Your task to perform on an android device: empty trash in google photos Image 0: 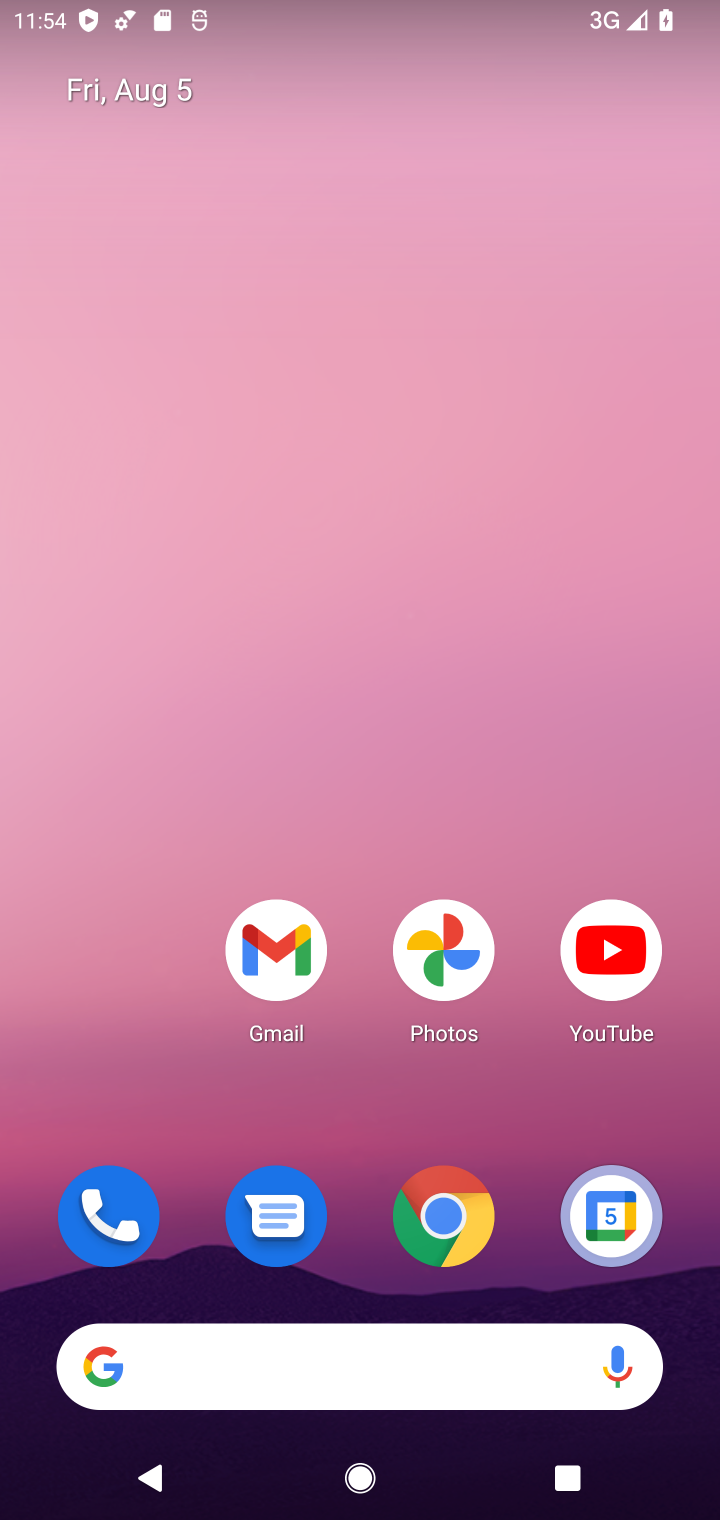
Step 0: drag from (409, 1355) to (443, 4)
Your task to perform on an android device: empty trash in google photos Image 1: 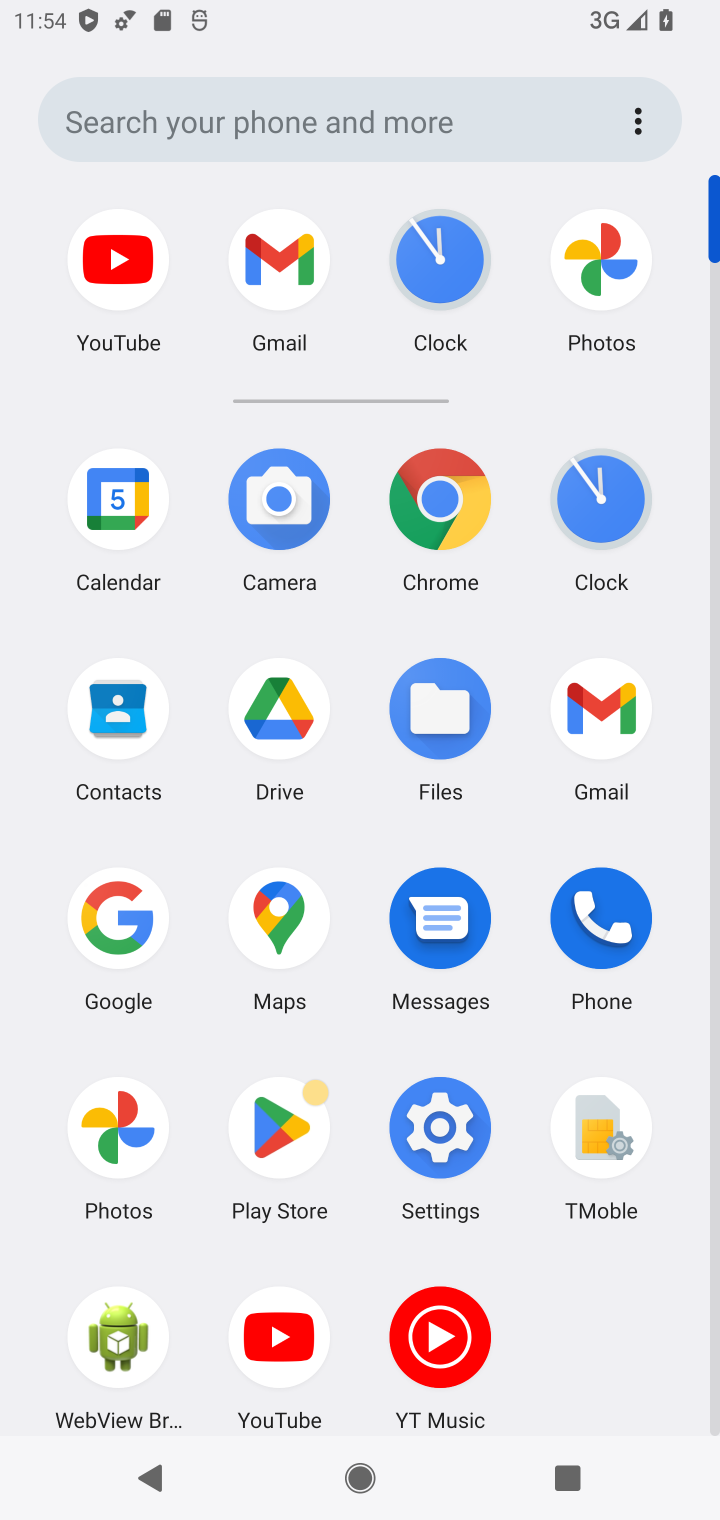
Step 1: click (116, 1112)
Your task to perform on an android device: empty trash in google photos Image 2: 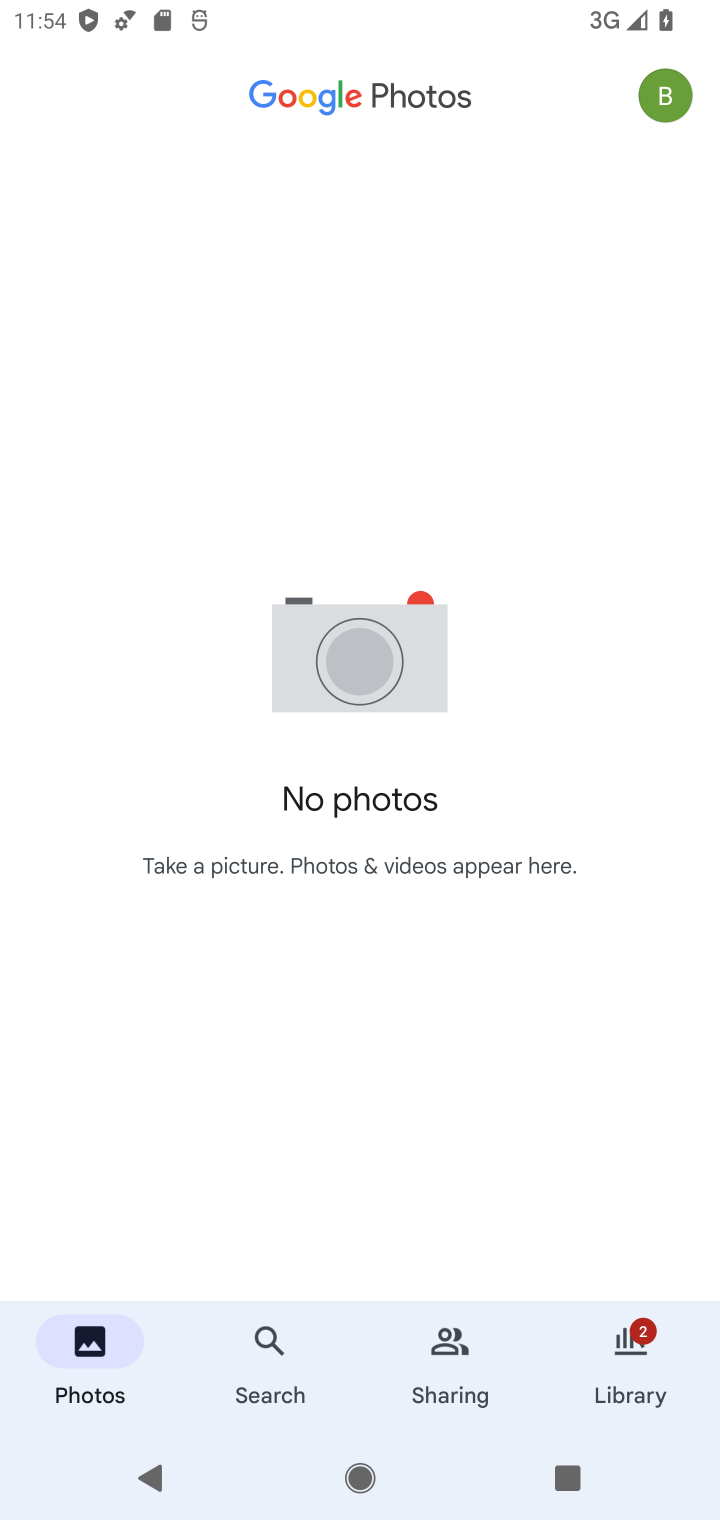
Step 2: click (667, 92)
Your task to perform on an android device: empty trash in google photos Image 3: 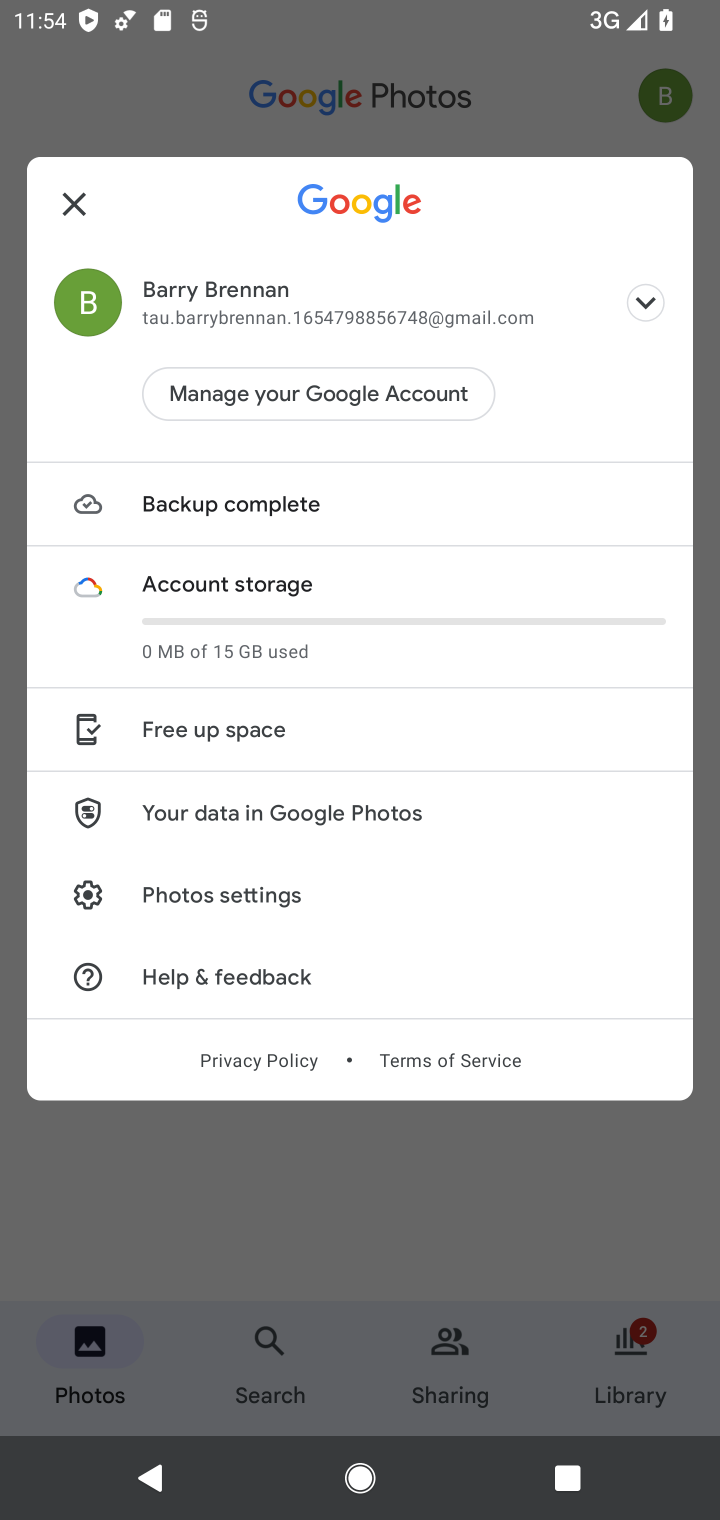
Step 3: click (388, 1257)
Your task to perform on an android device: empty trash in google photos Image 4: 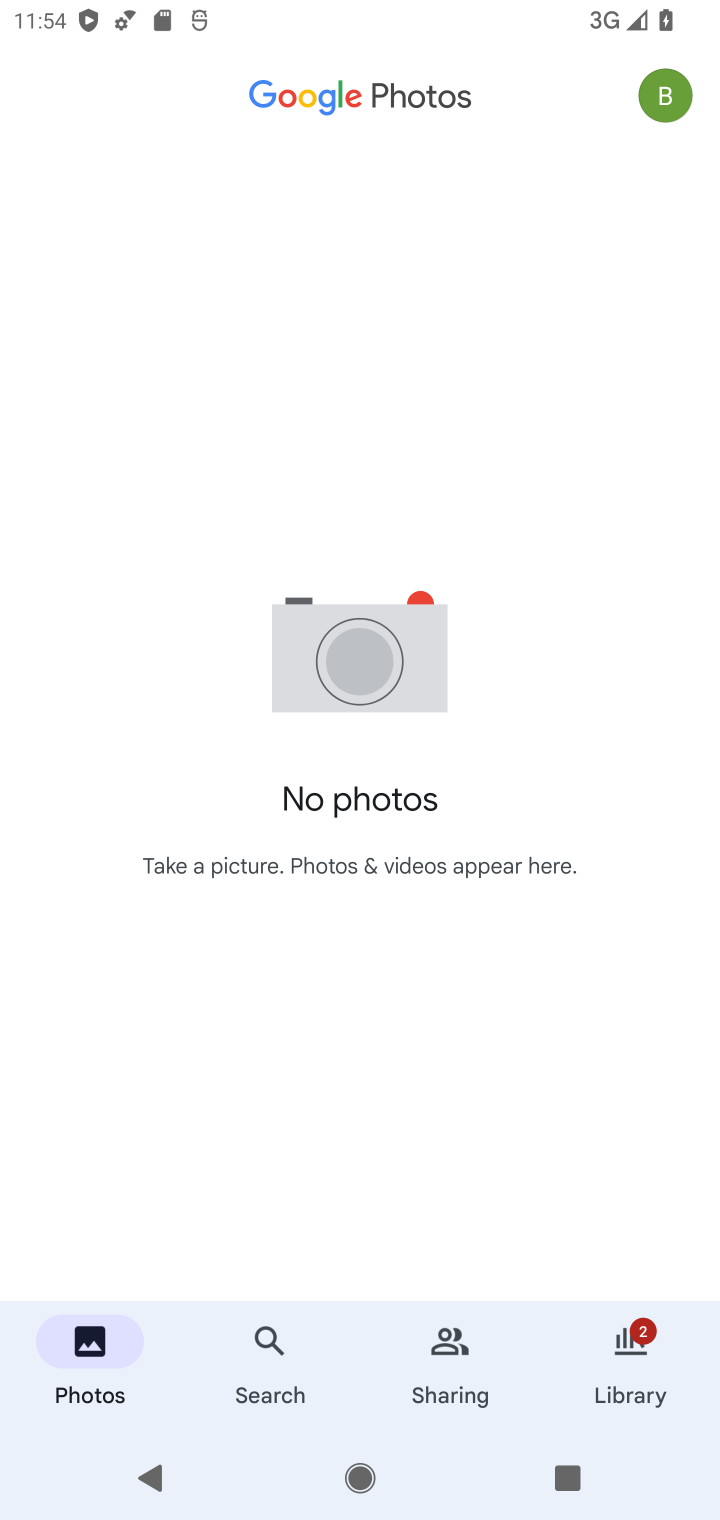
Step 4: click (636, 1351)
Your task to perform on an android device: empty trash in google photos Image 5: 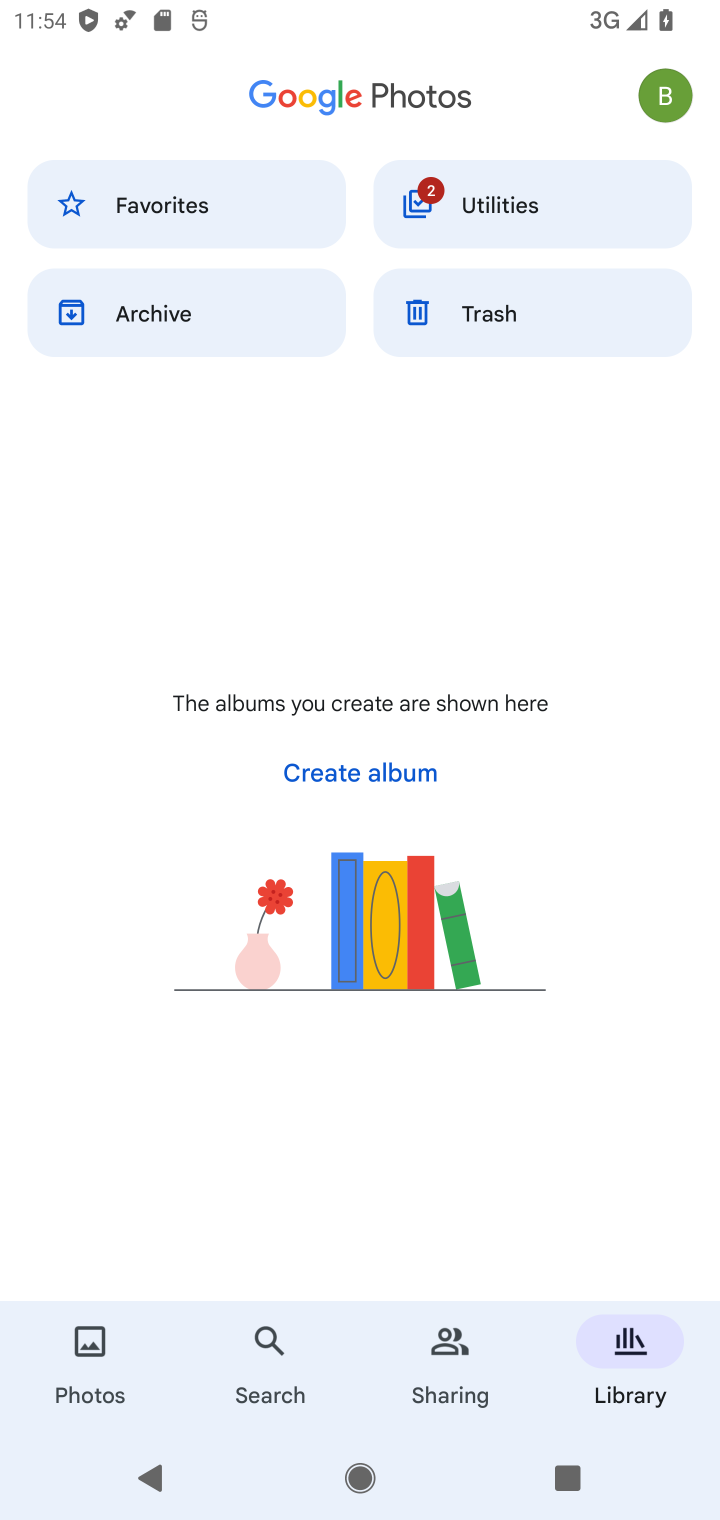
Step 5: click (484, 316)
Your task to perform on an android device: empty trash in google photos Image 6: 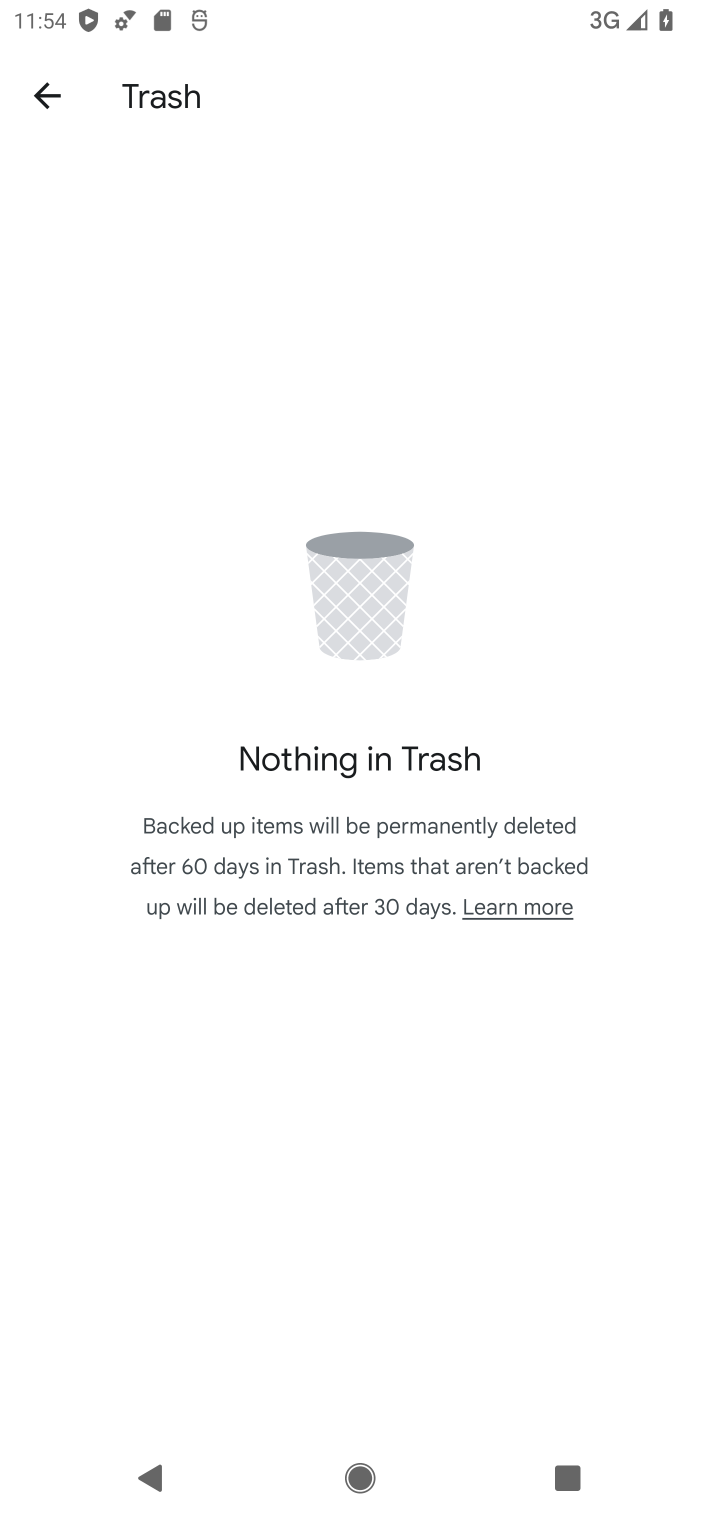
Step 6: task complete